Your task to perform on an android device: Open eBay Image 0: 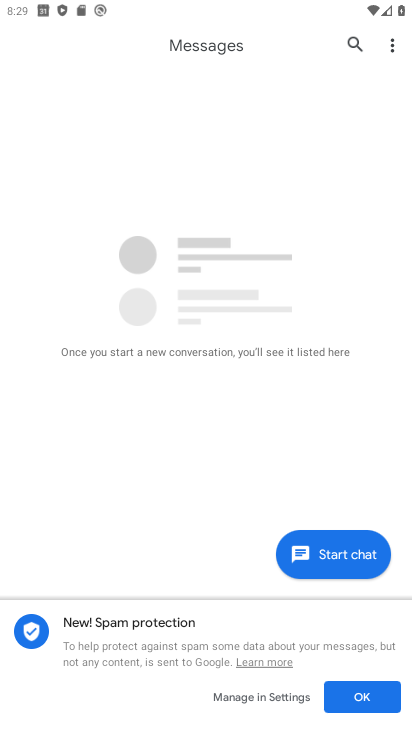
Step 0: press home button
Your task to perform on an android device: Open eBay Image 1: 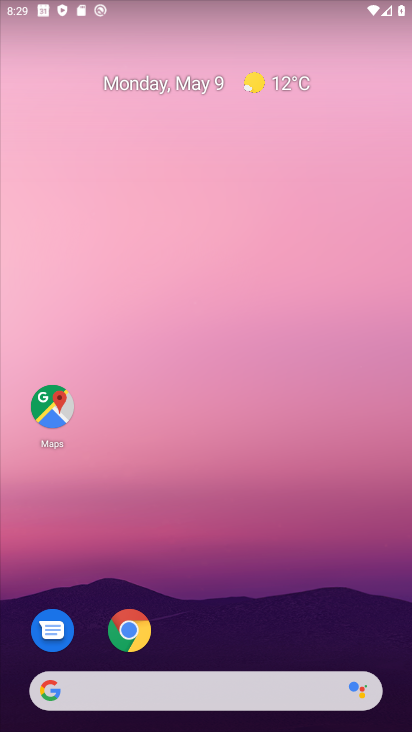
Step 1: click (133, 634)
Your task to perform on an android device: Open eBay Image 2: 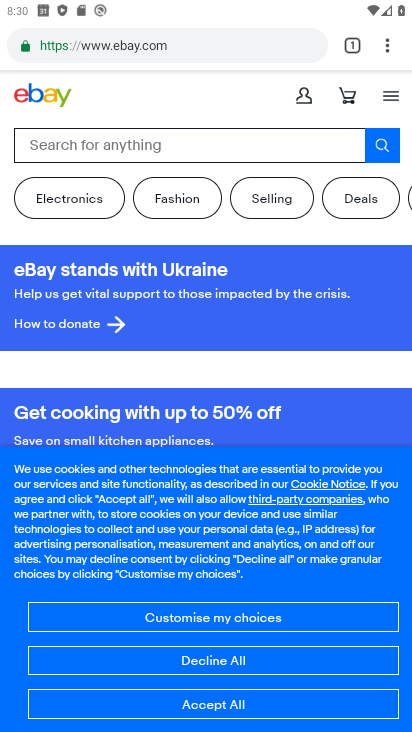
Step 2: click (392, 103)
Your task to perform on an android device: Open eBay Image 3: 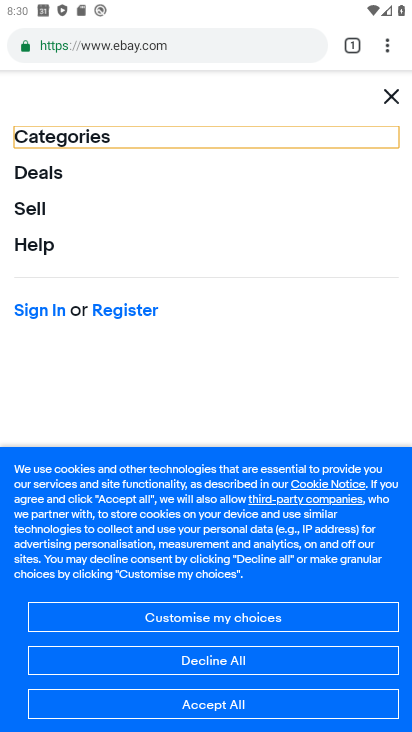
Step 3: task complete